Your task to perform on an android device: Search for pizza restaurants on Maps Image 0: 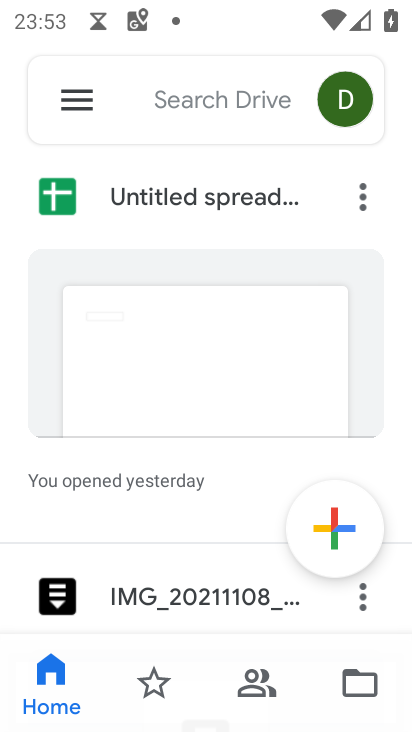
Step 0: press home button
Your task to perform on an android device: Search for pizza restaurants on Maps Image 1: 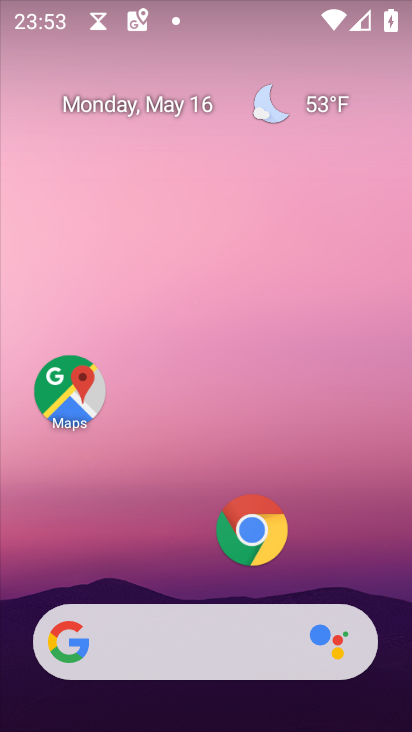
Step 1: click (72, 403)
Your task to perform on an android device: Search for pizza restaurants on Maps Image 2: 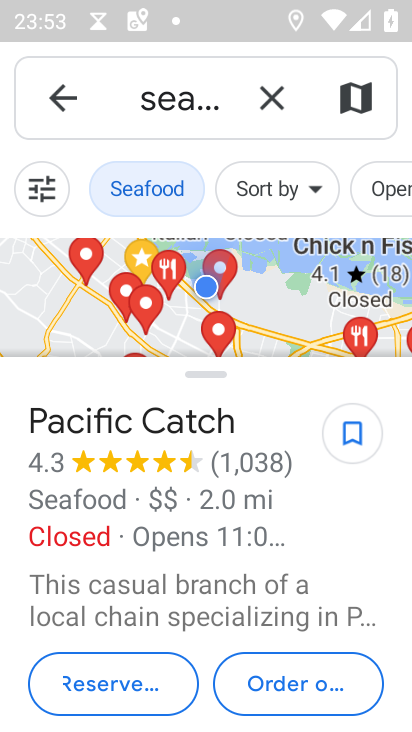
Step 2: click (273, 101)
Your task to perform on an android device: Search for pizza restaurants on Maps Image 3: 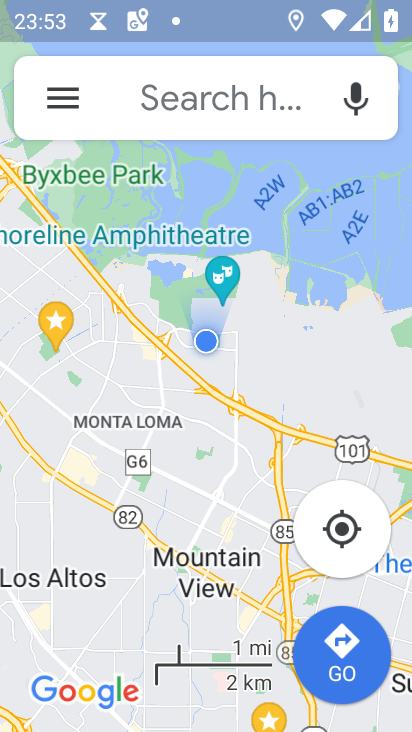
Step 3: click (273, 101)
Your task to perform on an android device: Search for pizza restaurants on Maps Image 4: 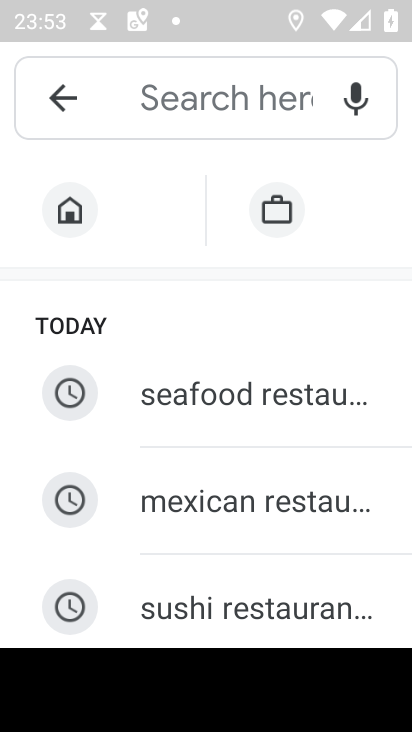
Step 4: type "pizza restaurants"
Your task to perform on an android device: Search for pizza restaurants on Maps Image 5: 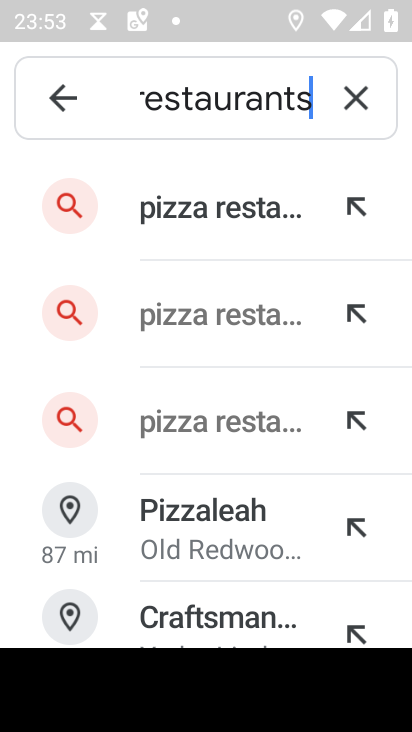
Step 5: click (229, 208)
Your task to perform on an android device: Search for pizza restaurants on Maps Image 6: 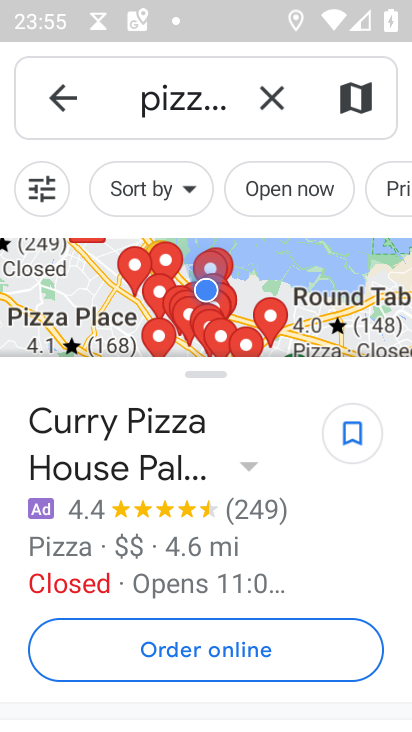
Step 6: task complete